Your task to perform on an android device: turn smart compose on in the gmail app Image 0: 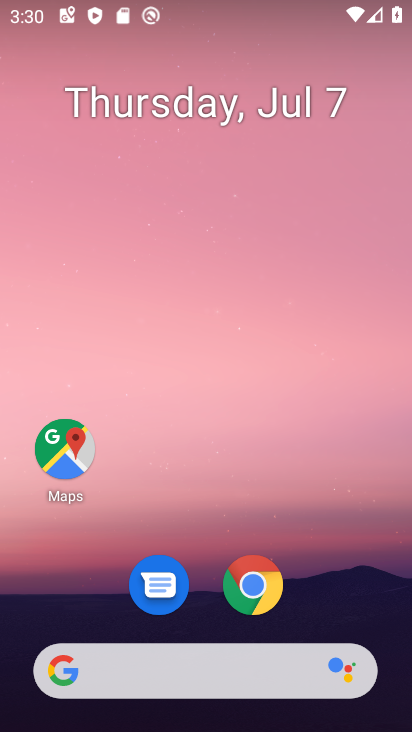
Step 0: drag from (210, 541) to (202, 140)
Your task to perform on an android device: turn smart compose on in the gmail app Image 1: 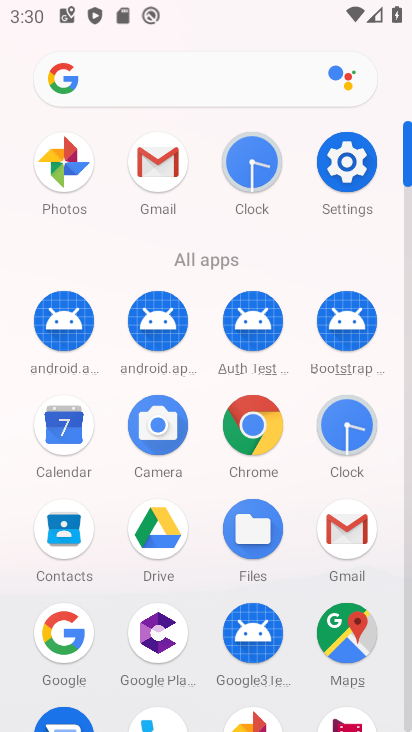
Step 1: click (165, 172)
Your task to perform on an android device: turn smart compose on in the gmail app Image 2: 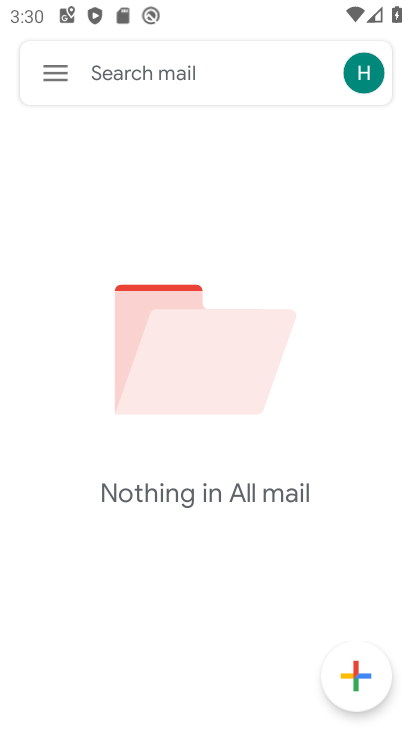
Step 2: click (62, 68)
Your task to perform on an android device: turn smart compose on in the gmail app Image 3: 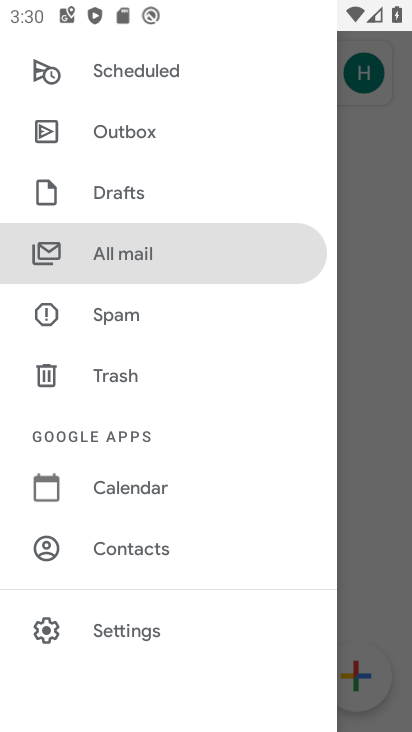
Step 3: click (121, 630)
Your task to perform on an android device: turn smart compose on in the gmail app Image 4: 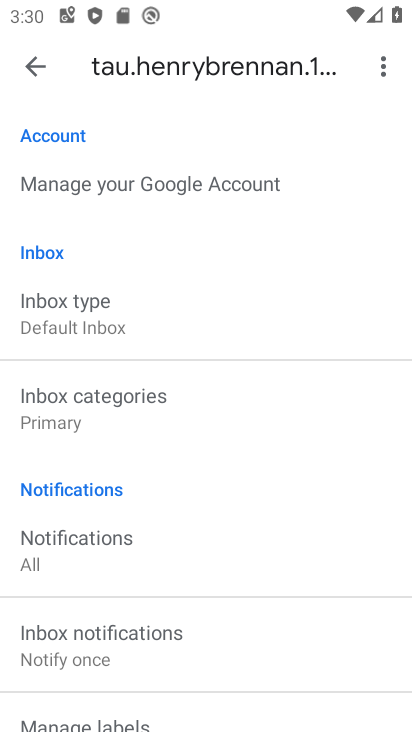
Step 4: task complete